Your task to perform on an android device: Go to battery settings Image 0: 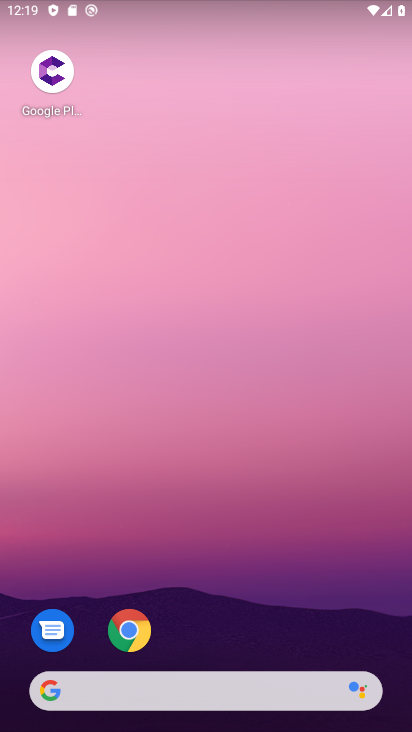
Step 0: drag from (311, 707) to (270, 240)
Your task to perform on an android device: Go to battery settings Image 1: 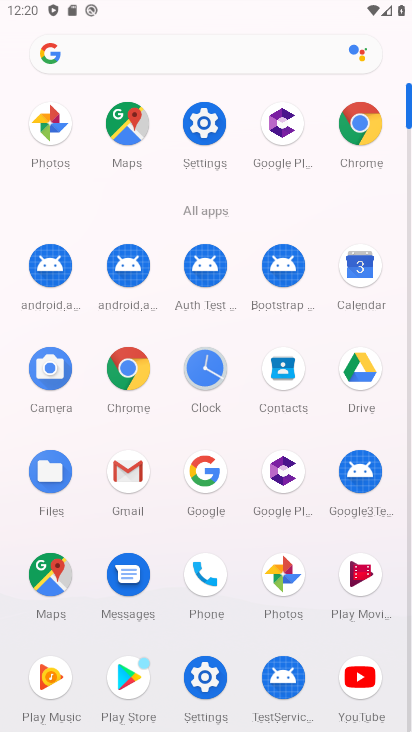
Step 1: click (189, 137)
Your task to perform on an android device: Go to battery settings Image 2: 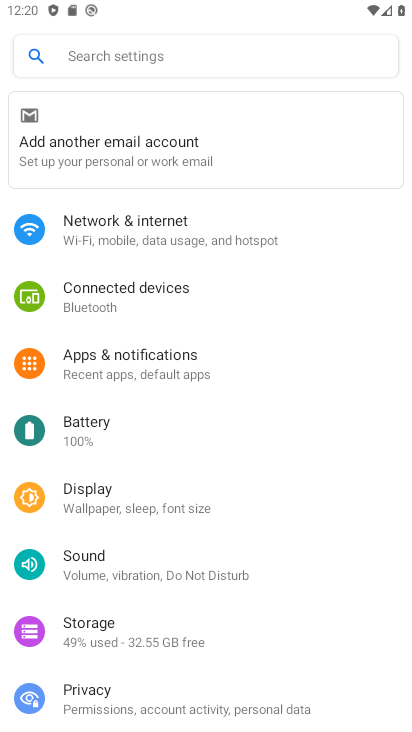
Step 2: click (91, 443)
Your task to perform on an android device: Go to battery settings Image 3: 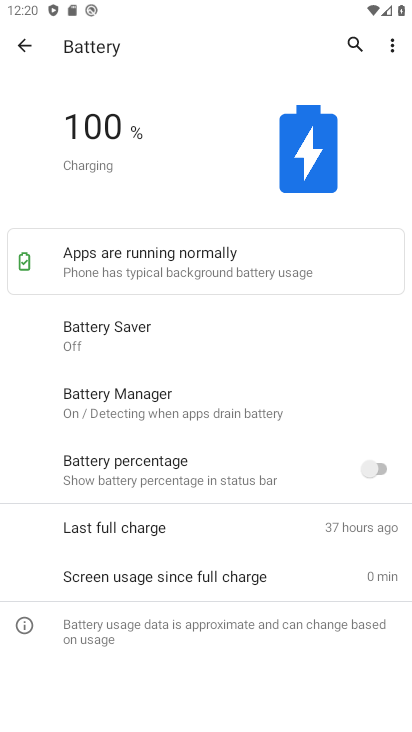
Step 3: task complete